Your task to perform on an android device: turn on airplane mode Image 0: 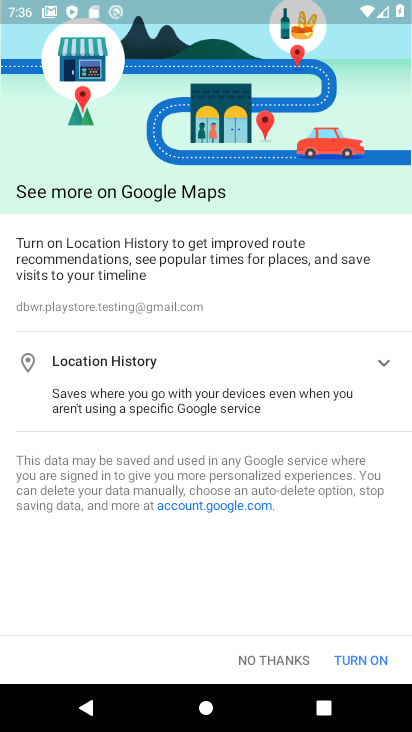
Step 0: press home button
Your task to perform on an android device: turn on airplane mode Image 1: 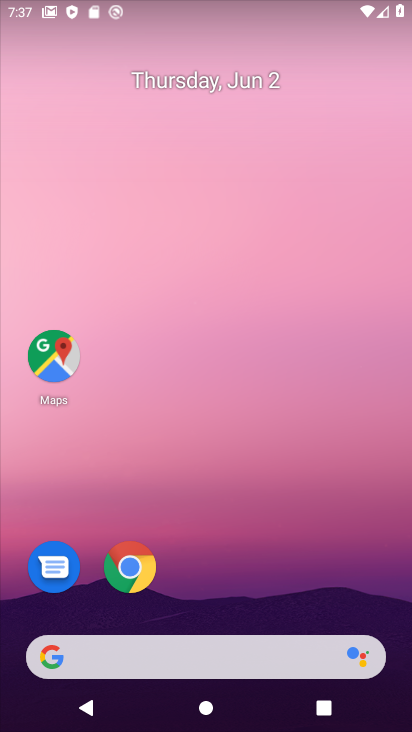
Step 1: drag from (251, 584) to (230, 123)
Your task to perform on an android device: turn on airplane mode Image 2: 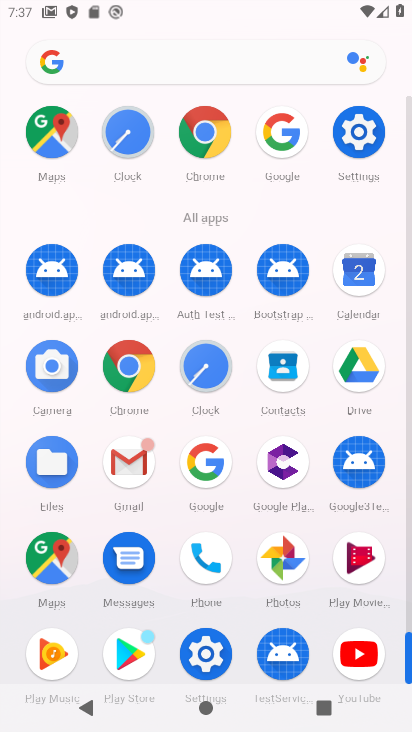
Step 2: click (358, 133)
Your task to perform on an android device: turn on airplane mode Image 3: 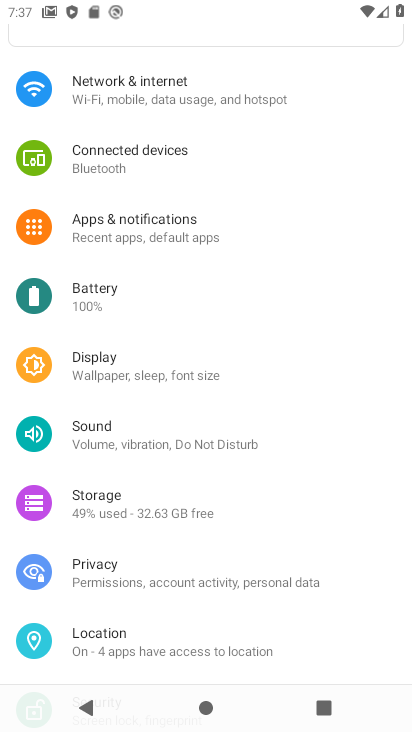
Step 3: click (261, 97)
Your task to perform on an android device: turn on airplane mode Image 4: 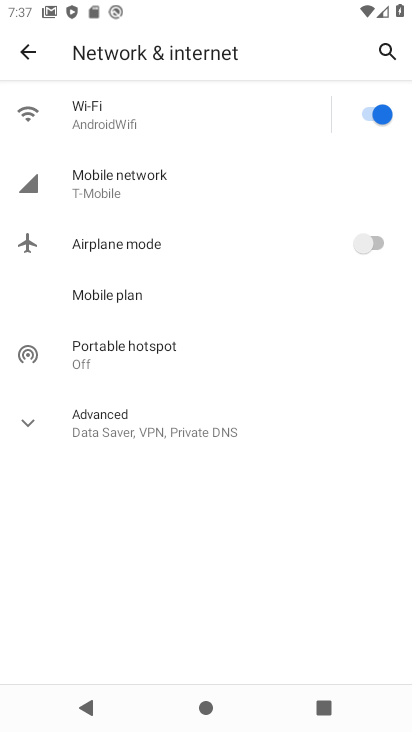
Step 4: click (360, 244)
Your task to perform on an android device: turn on airplane mode Image 5: 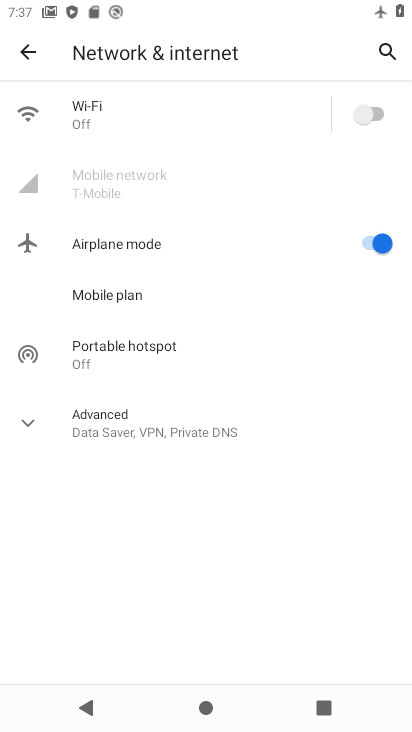
Step 5: task complete